Your task to perform on an android device: Show me recent news Image 0: 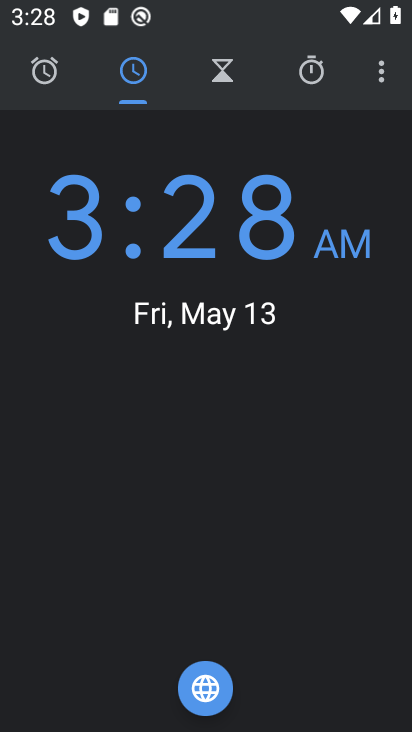
Step 0: press home button
Your task to perform on an android device: Show me recent news Image 1: 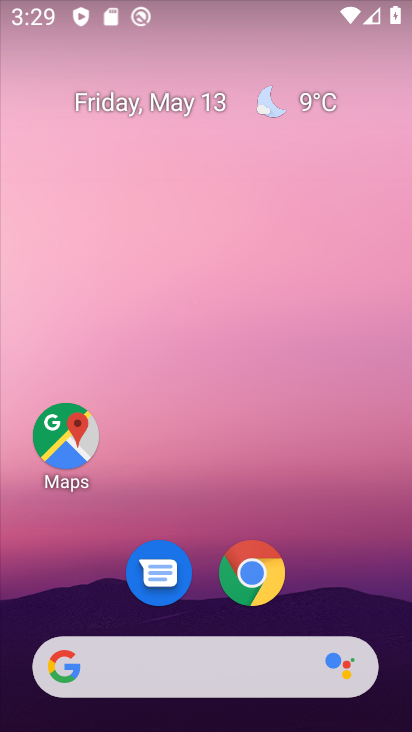
Step 1: drag from (6, 328) to (407, 335)
Your task to perform on an android device: Show me recent news Image 2: 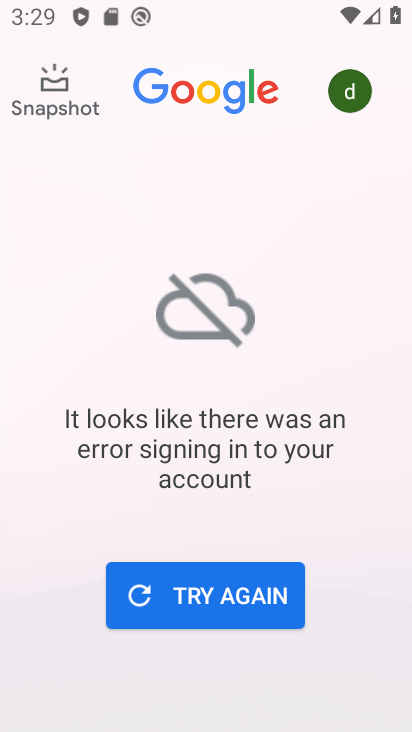
Step 2: click (207, 590)
Your task to perform on an android device: Show me recent news Image 3: 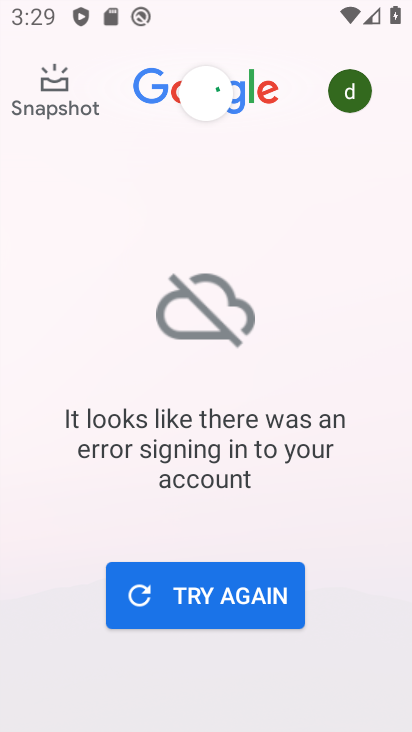
Step 3: task complete